Your task to perform on an android device: Empty the shopping cart on amazon. Add "dell xps" to the cart on amazon Image 0: 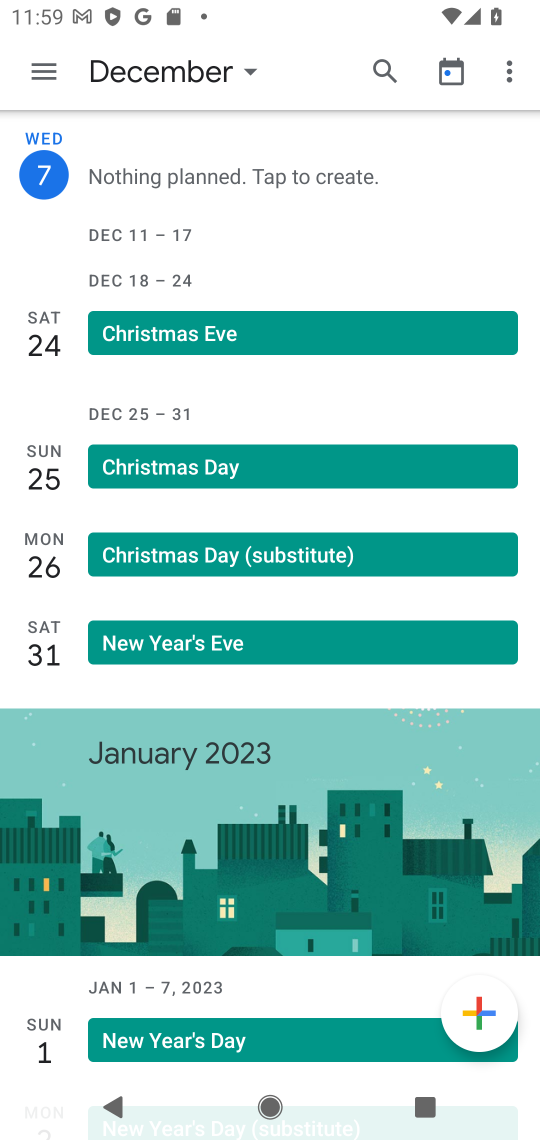
Step 0: press home button
Your task to perform on an android device: Empty the shopping cart on amazon. Add "dell xps" to the cart on amazon Image 1: 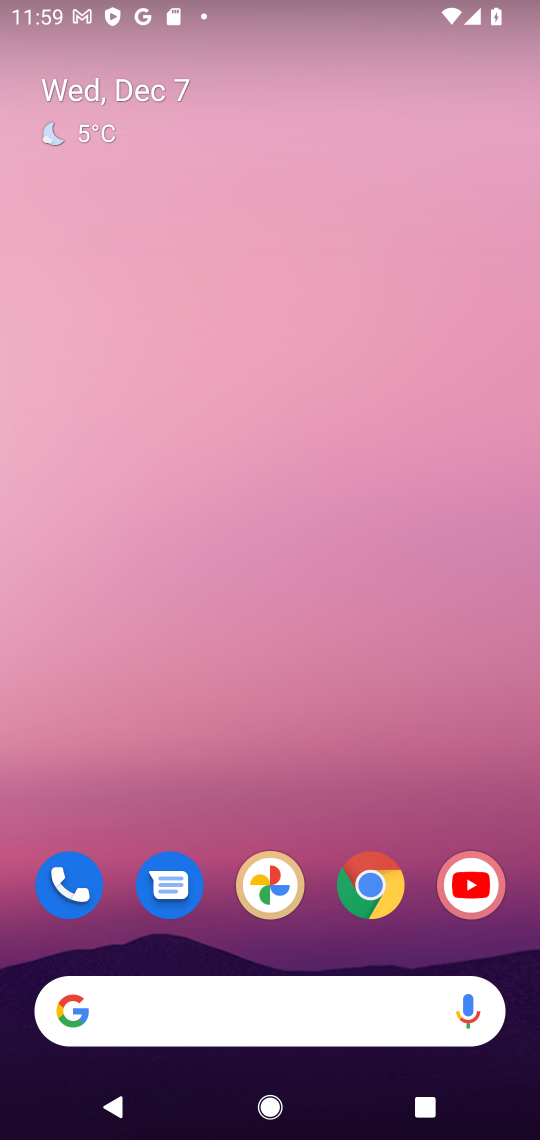
Step 1: click (372, 888)
Your task to perform on an android device: Empty the shopping cart on amazon. Add "dell xps" to the cart on amazon Image 2: 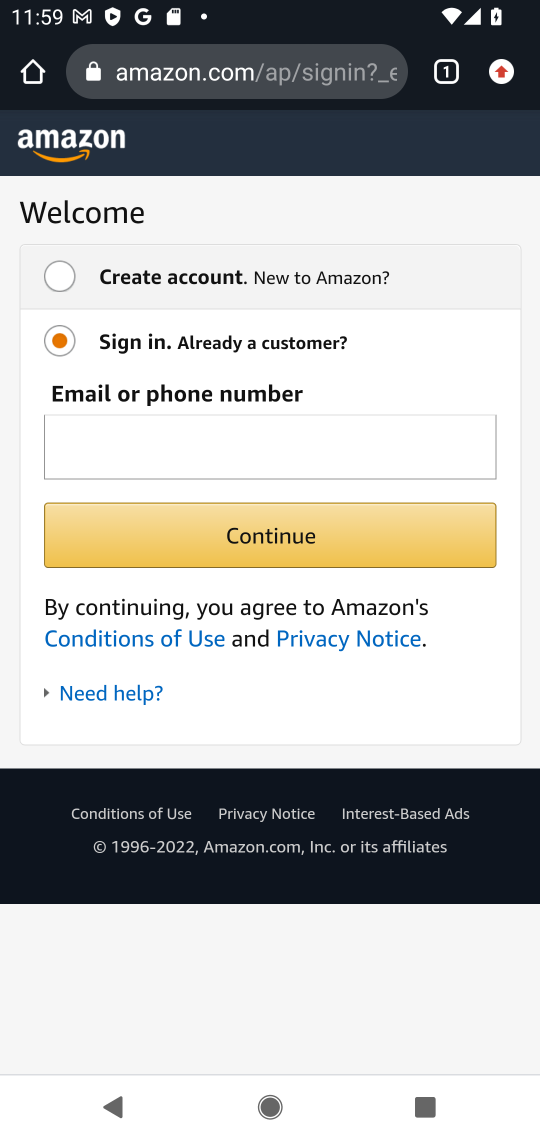
Step 2: click (300, 69)
Your task to perform on an android device: Empty the shopping cart on amazon. Add "dell xps" to the cart on amazon Image 3: 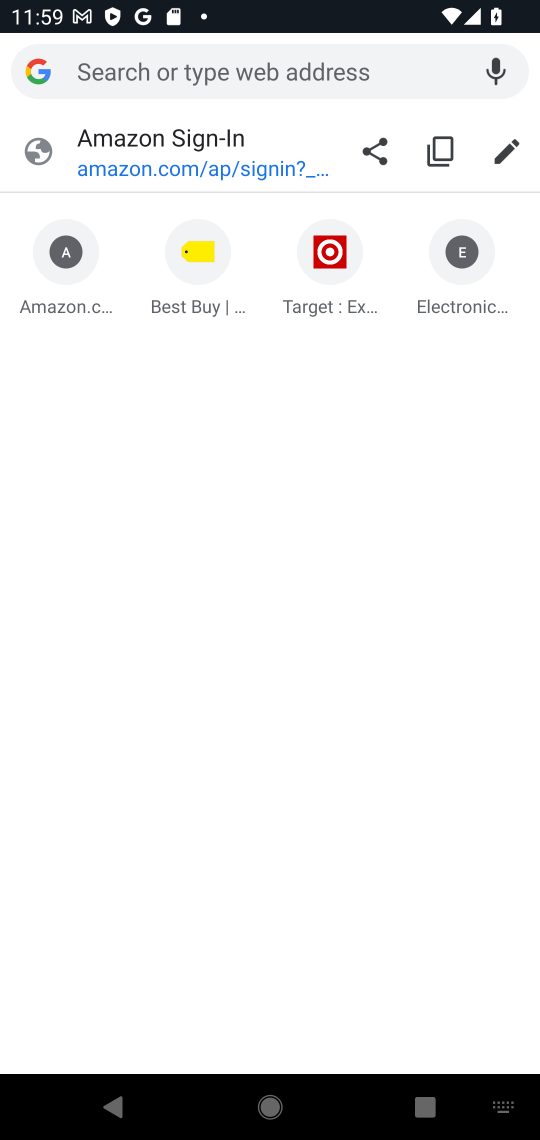
Step 3: click (69, 255)
Your task to perform on an android device: Empty the shopping cart on amazon. Add "dell xps" to the cart on amazon Image 4: 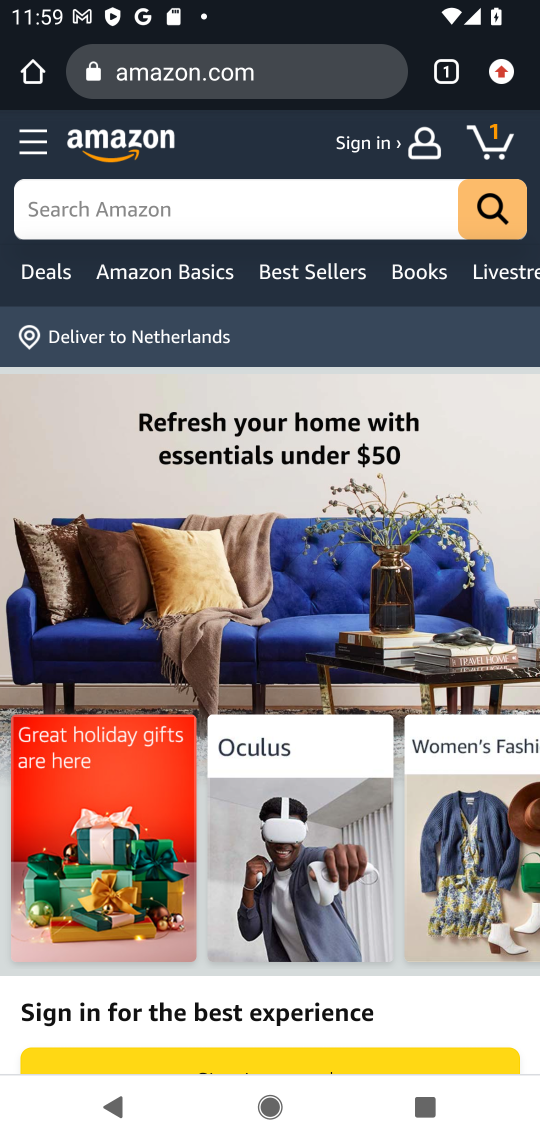
Step 4: click (286, 207)
Your task to perform on an android device: Empty the shopping cart on amazon. Add "dell xps" to the cart on amazon Image 5: 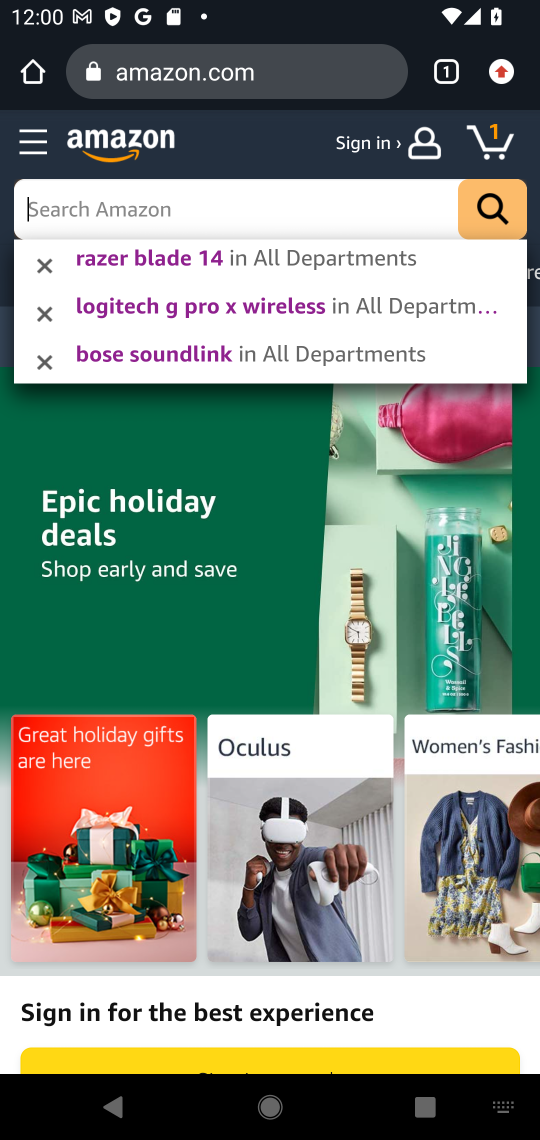
Step 5: type "DELL XPS"
Your task to perform on an android device: Empty the shopping cart on amazon. Add "dell xps" to the cart on amazon Image 6: 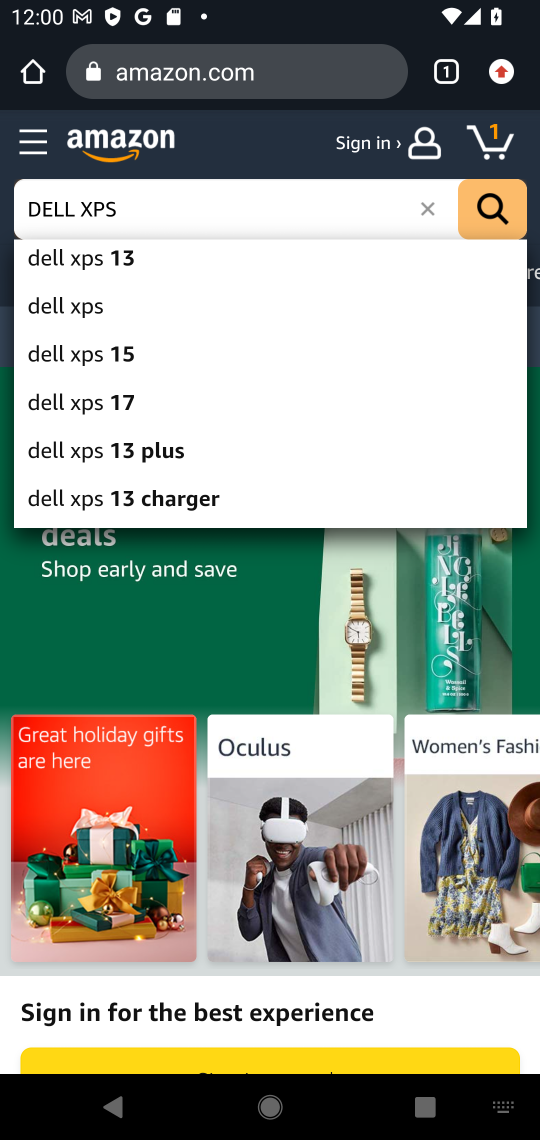
Step 6: click (124, 258)
Your task to perform on an android device: Empty the shopping cart on amazon. Add "dell xps" to the cart on amazon Image 7: 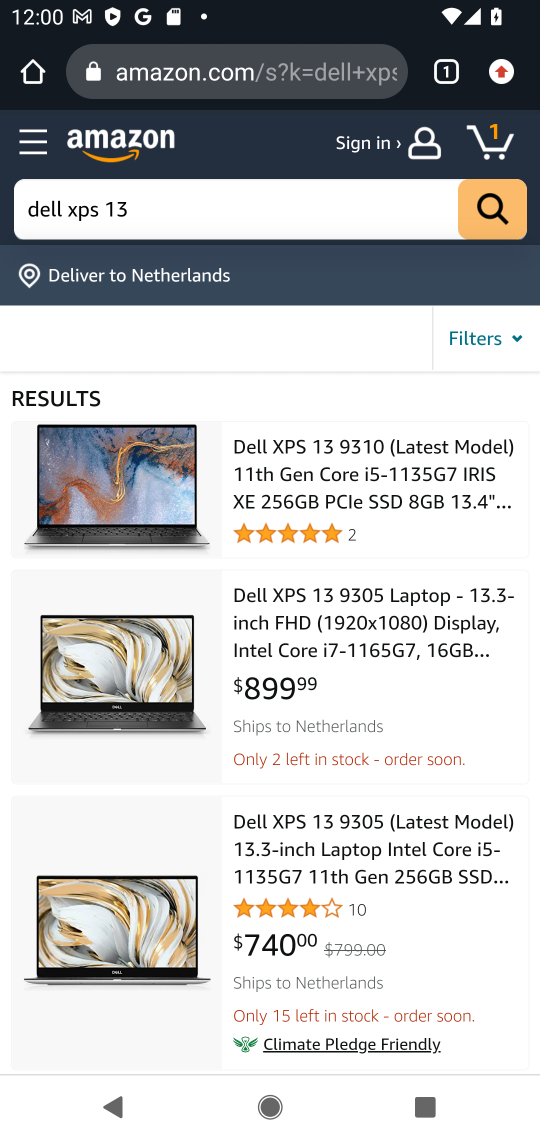
Step 7: click (135, 475)
Your task to perform on an android device: Empty the shopping cart on amazon. Add "dell xps" to the cart on amazon Image 8: 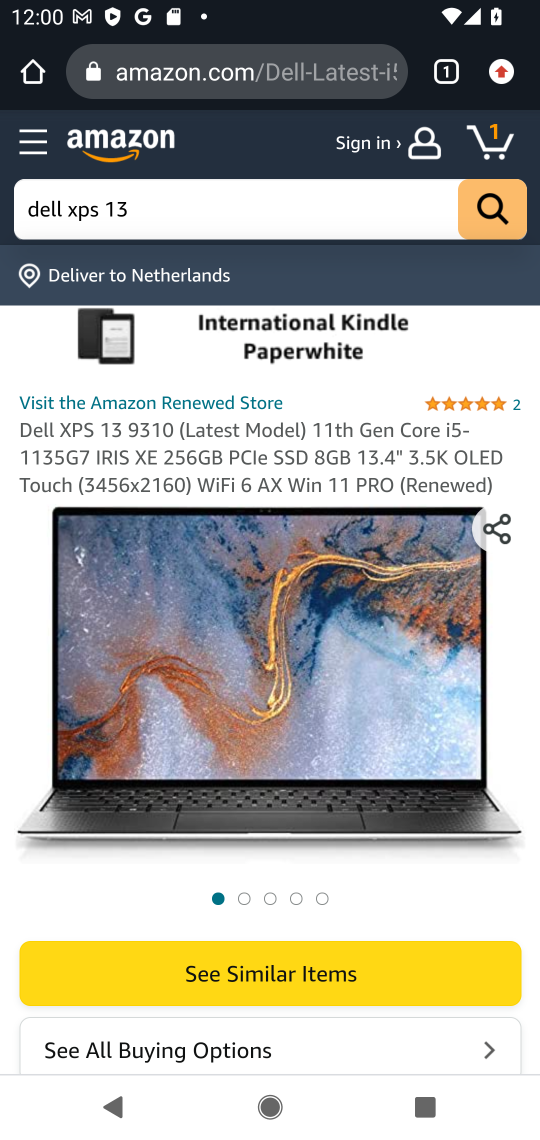
Step 8: task complete